Your task to perform on an android device: Open the stopwatch Image 0: 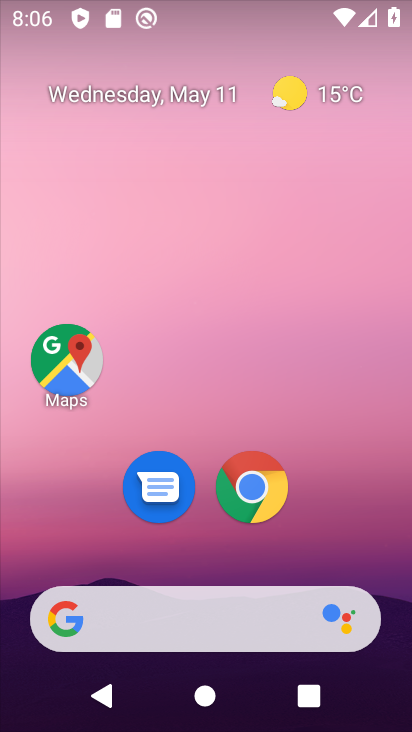
Step 0: drag from (278, 650) to (172, 111)
Your task to perform on an android device: Open the stopwatch Image 1: 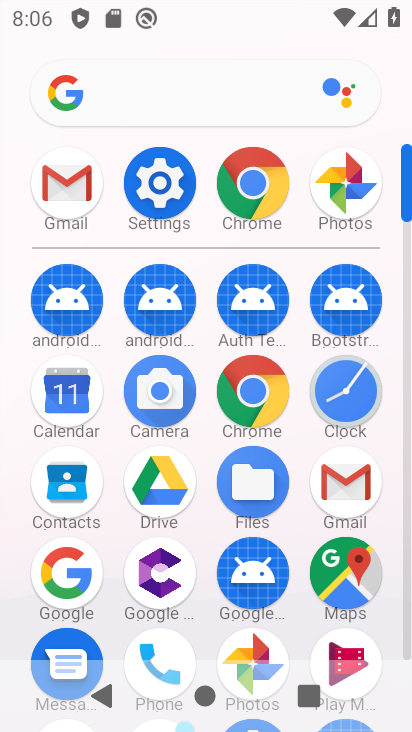
Step 1: click (345, 412)
Your task to perform on an android device: Open the stopwatch Image 2: 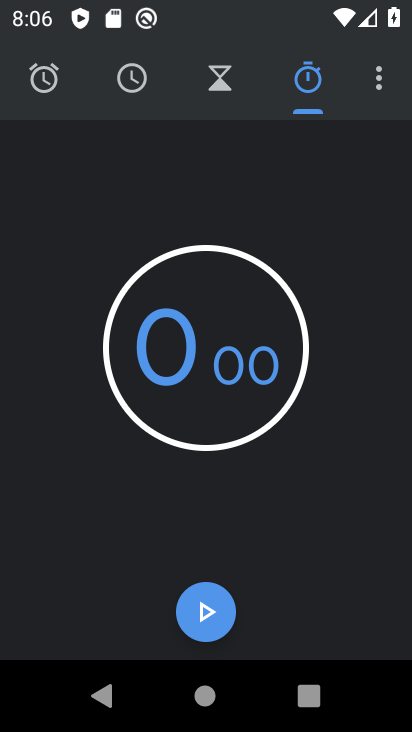
Step 2: click (297, 90)
Your task to perform on an android device: Open the stopwatch Image 3: 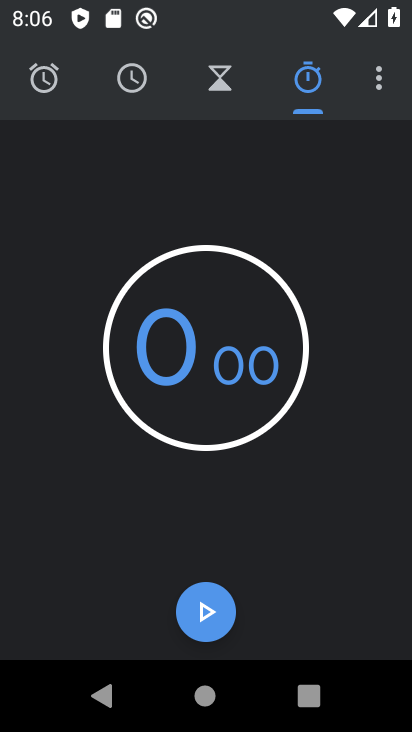
Step 3: task complete